Your task to perform on an android device: What's a good restaurant in New York? Image 0: 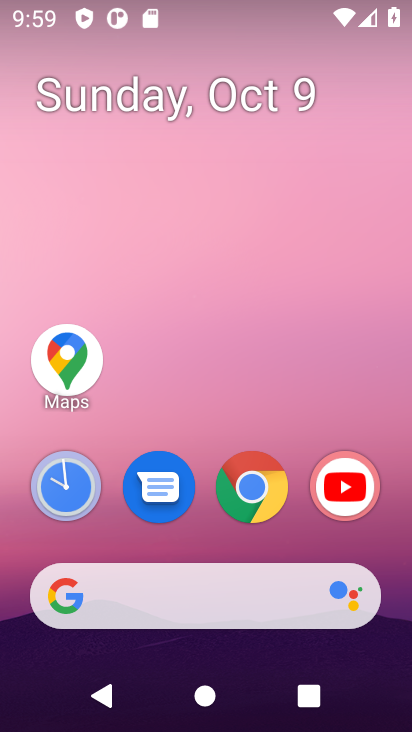
Step 0: drag from (251, 148) to (256, 101)
Your task to perform on an android device: What's a good restaurant in New York? Image 1: 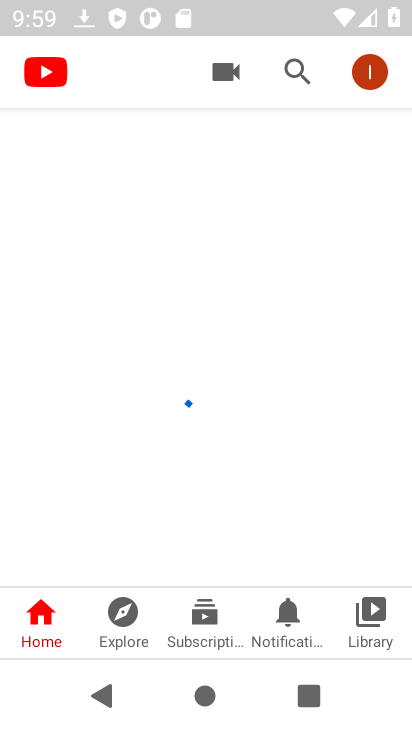
Step 1: press home button
Your task to perform on an android device: What's a good restaurant in New York? Image 2: 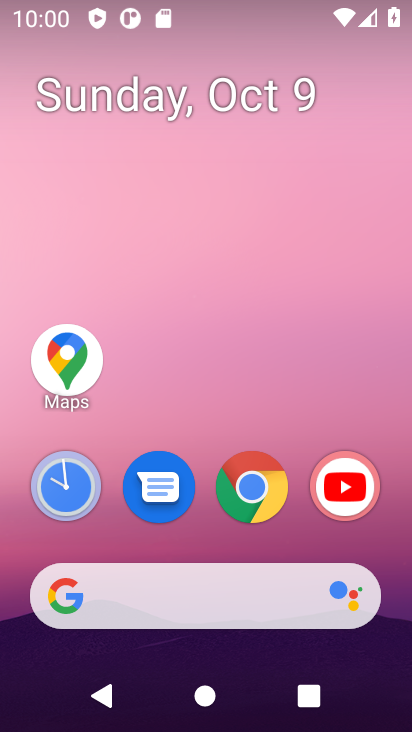
Step 2: drag from (196, 347) to (228, 104)
Your task to perform on an android device: What's a good restaurant in New York? Image 3: 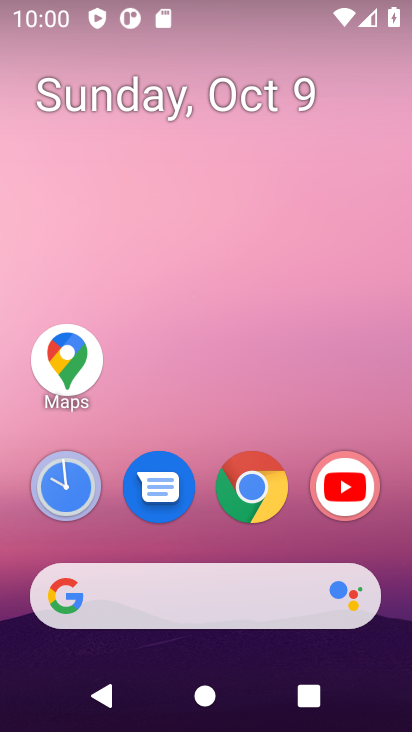
Step 3: drag from (201, 533) to (195, 0)
Your task to perform on an android device: What's a good restaurant in New York? Image 4: 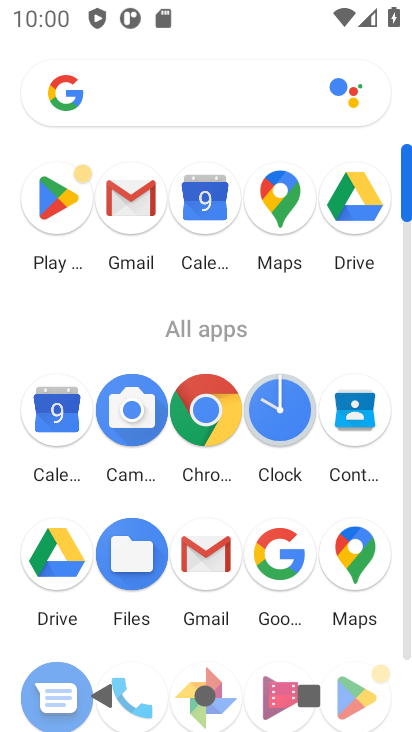
Step 4: click (211, 408)
Your task to perform on an android device: What's a good restaurant in New York? Image 5: 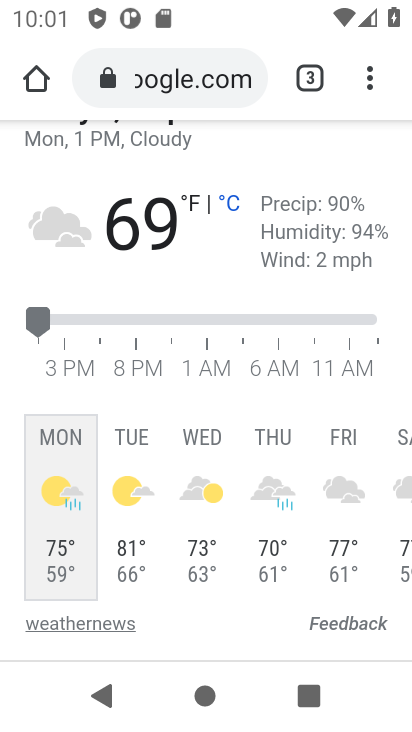
Step 5: drag from (366, 82) to (81, 168)
Your task to perform on an android device: What's a good restaurant in New York? Image 6: 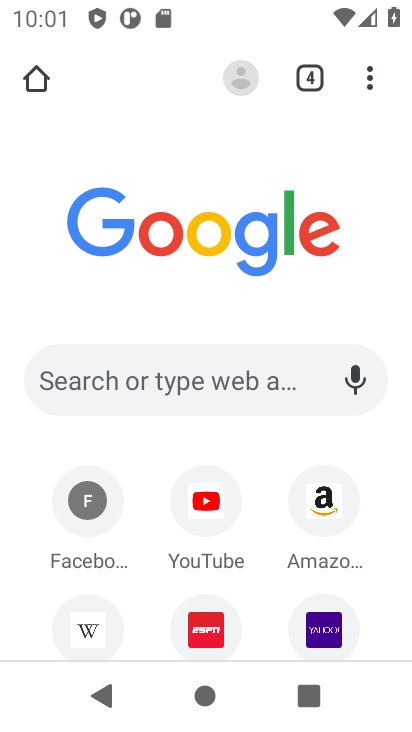
Step 6: click (203, 372)
Your task to perform on an android device: What's a good restaurant in New York? Image 7: 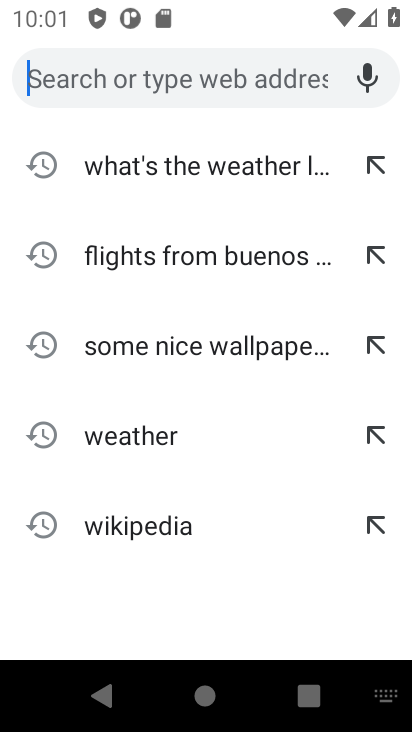
Step 7: type "What's a good restaurant in New York?"
Your task to perform on an android device: What's a good restaurant in New York? Image 8: 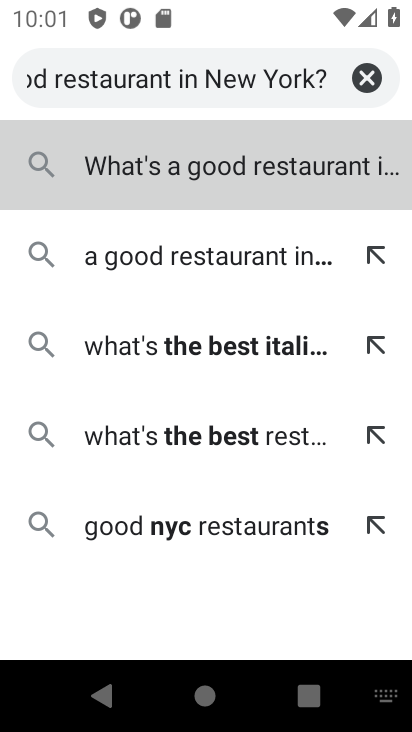
Step 8: click (254, 159)
Your task to perform on an android device: What's a good restaurant in New York? Image 9: 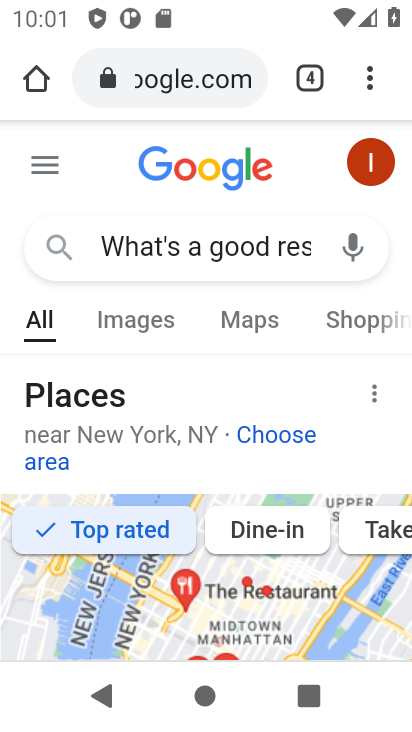
Step 9: task complete